Your task to perform on an android device: change the clock style Image 0: 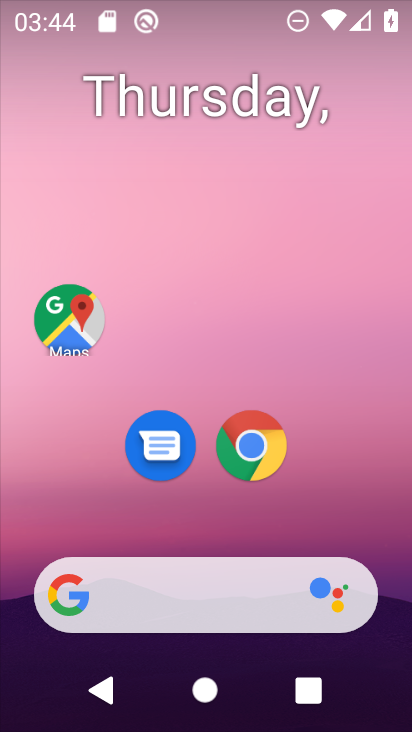
Step 0: drag from (346, 542) to (331, 16)
Your task to perform on an android device: change the clock style Image 1: 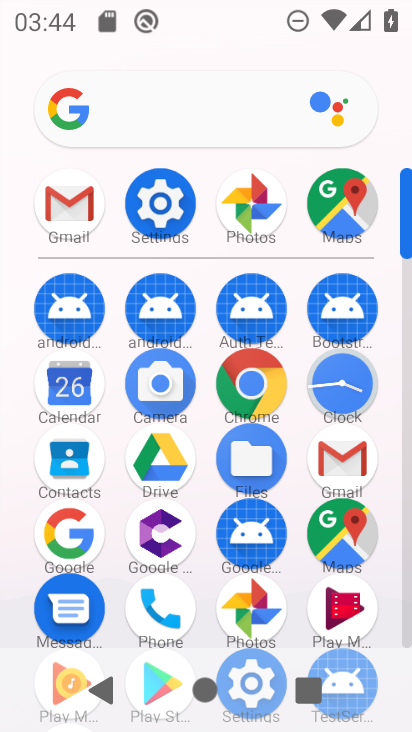
Step 1: click (337, 387)
Your task to perform on an android device: change the clock style Image 2: 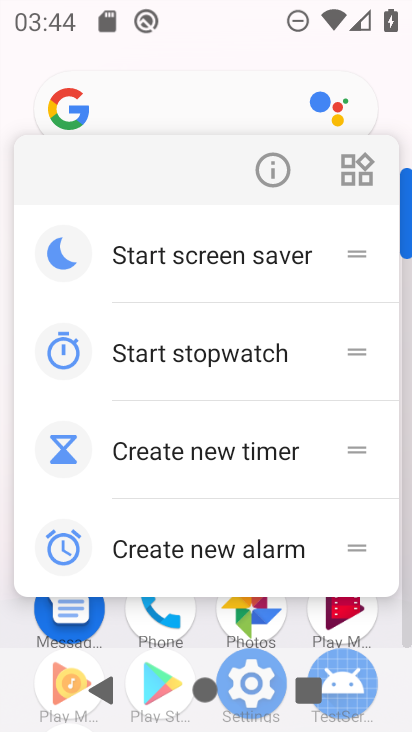
Step 2: click (396, 119)
Your task to perform on an android device: change the clock style Image 3: 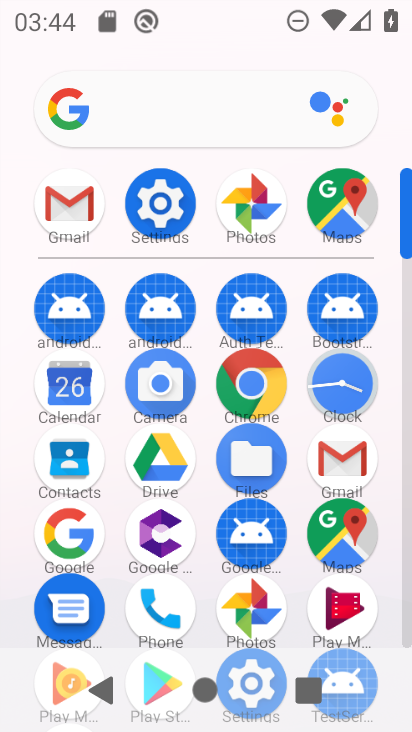
Step 3: click (339, 391)
Your task to perform on an android device: change the clock style Image 4: 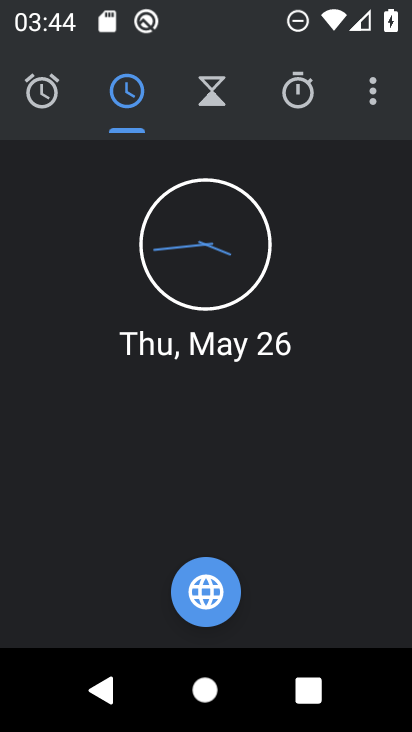
Step 4: click (378, 96)
Your task to perform on an android device: change the clock style Image 5: 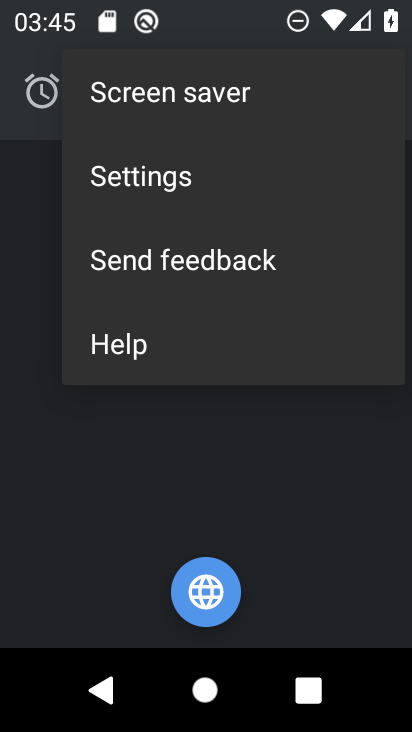
Step 5: click (136, 186)
Your task to perform on an android device: change the clock style Image 6: 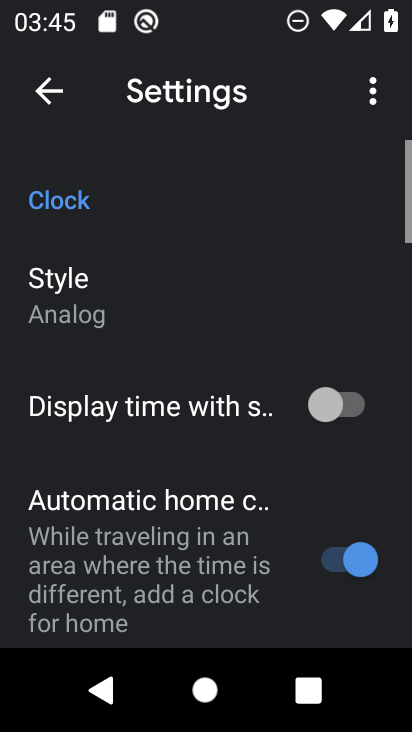
Step 6: click (72, 315)
Your task to perform on an android device: change the clock style Image 7: 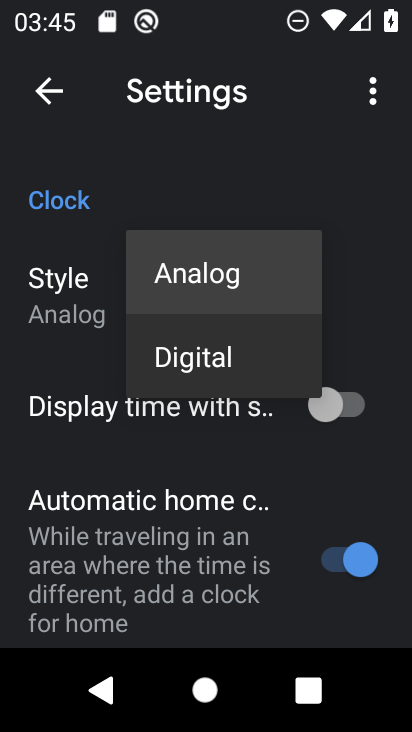
Step 7: click (183, 355)
Your task to perform on an android device: change the clock style Image 8: 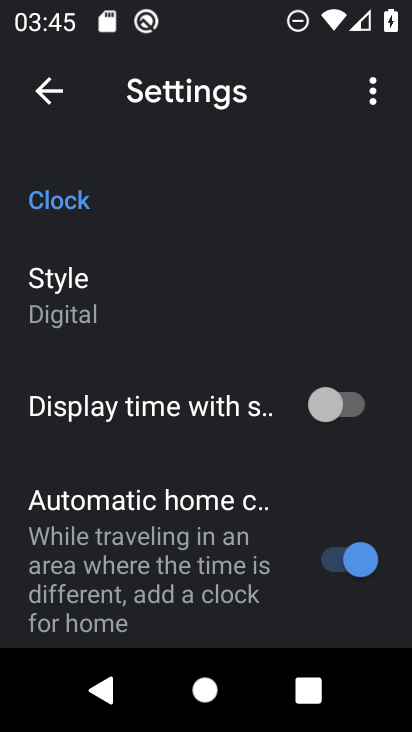
Step 8: task complete